Your task to perform on an android device: Check the weather Image 0: 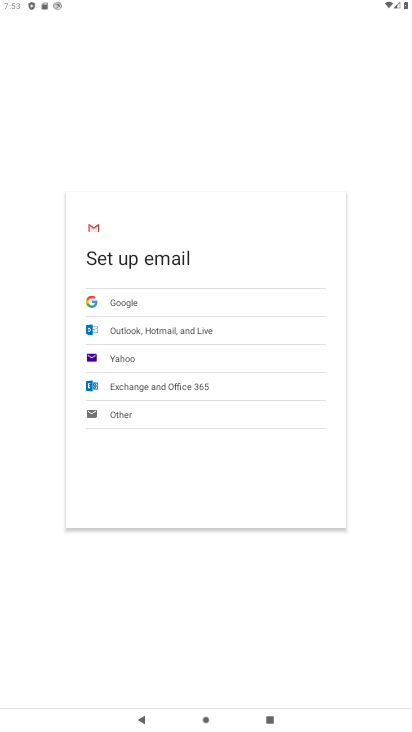
Step 0: press home button
Your task to perform on an android device: Check the weather Image 1: 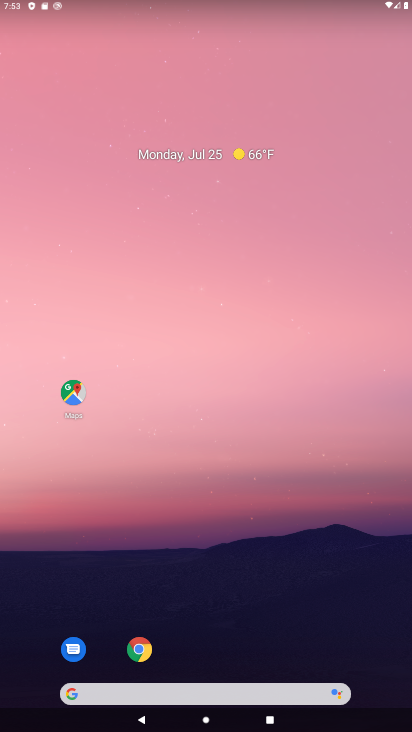
Step 1: click (146, 655)
Your task to perform on an android device: Check the weather Image 2: 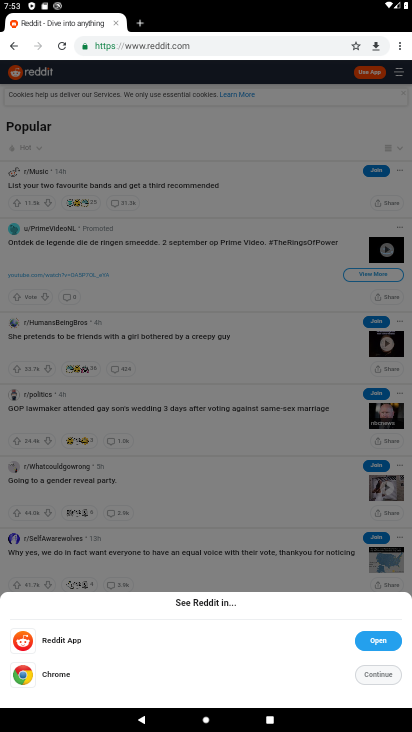
Step 2: click (195, 45)
Your task to perform on an android device: Check the weather Image 3: 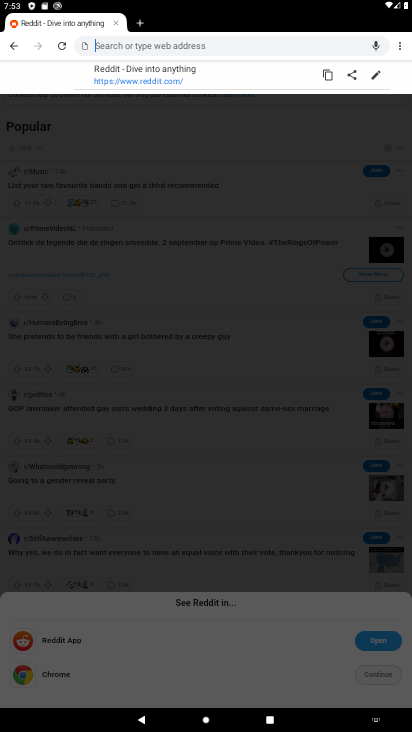
Step 3: type "Check the weather"
Your task to perform on an android device: Check the weather Image 4: 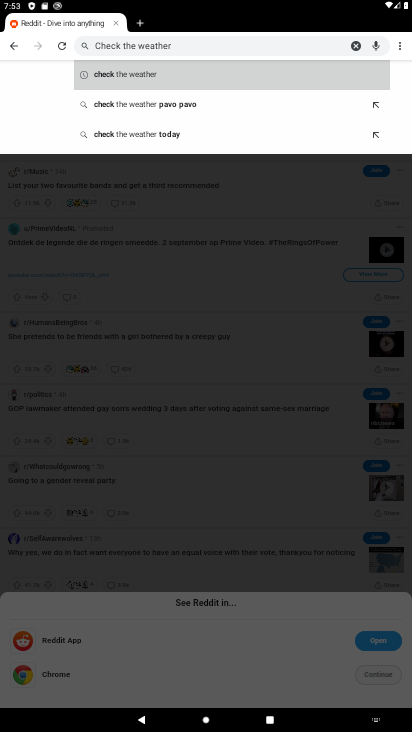
Step 4: click (308, 71)
Your task to perform on an android device: Check the weather Image 5: 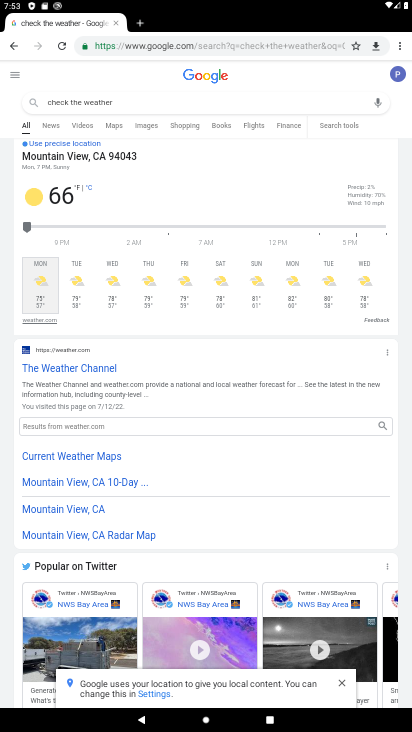
Step 5: task complete